Your task to perform on an android device: Open Yahoo.com Image 0: 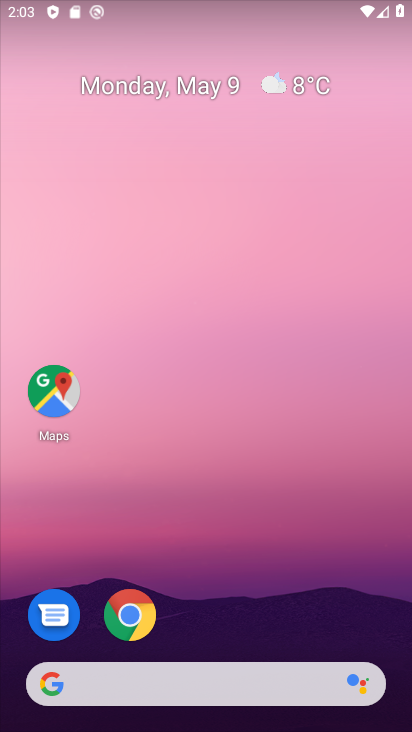
Step 0: click (144, 601)
Your task to perform on an android device: Open Yahoo.com Image 1: 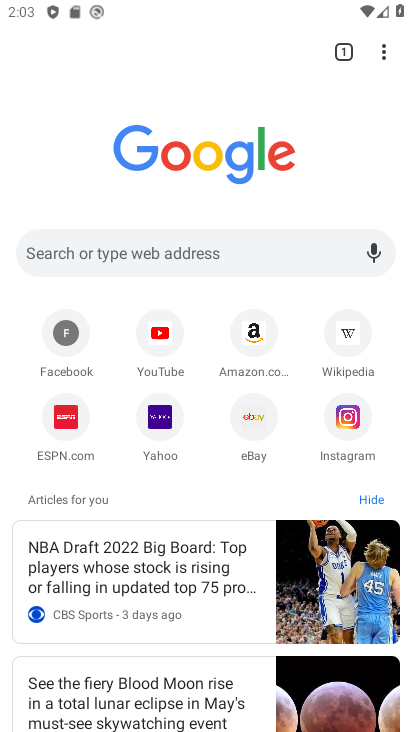
Step 1: click (170, 420)
Your task to perform on an android device: Open Yahoo.com Image 2: 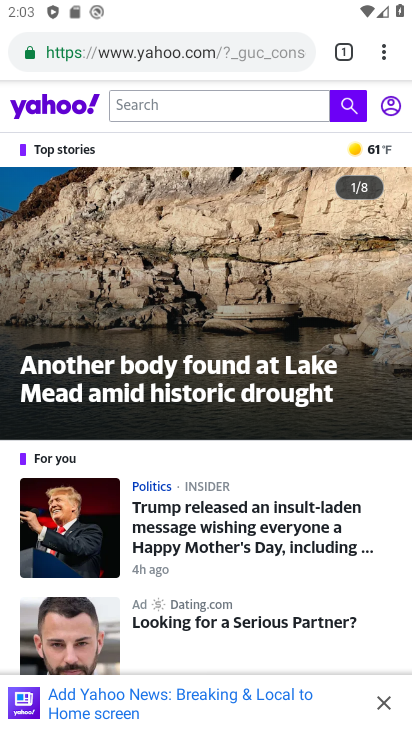
Step 2: task complete